Your task to perform on an android device: Open notification settings Image 0: 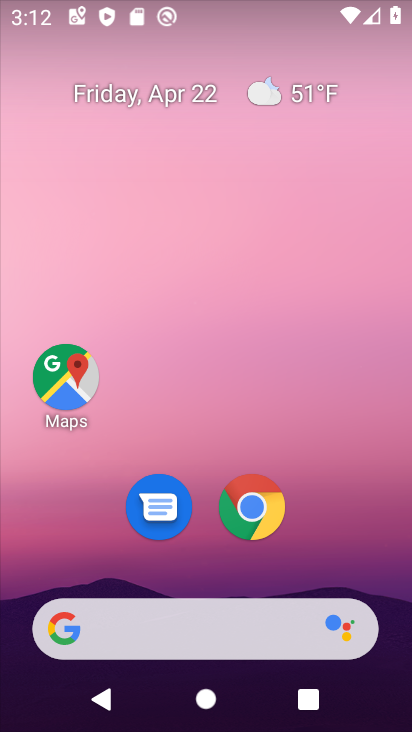
Step 0: drag from (207, 465) to (214, 99)
Your task to perform on an android device: Open notification settings Image 1: 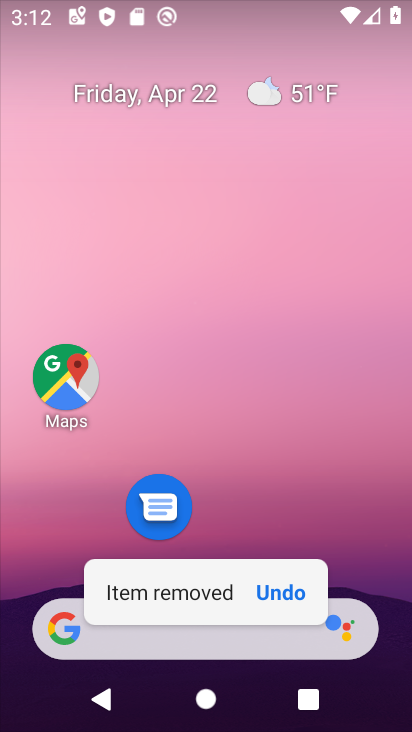
Step 1: drag from (242, 496) to (252, 54)
Your task to perform on an android device: Open notification settings Image 2: 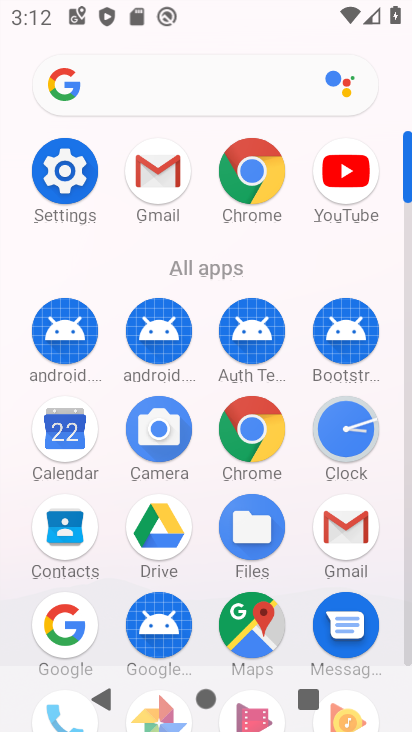
Step 2: click (68, 162)
Your task to perform on an android device: Open notification settings Image 3: 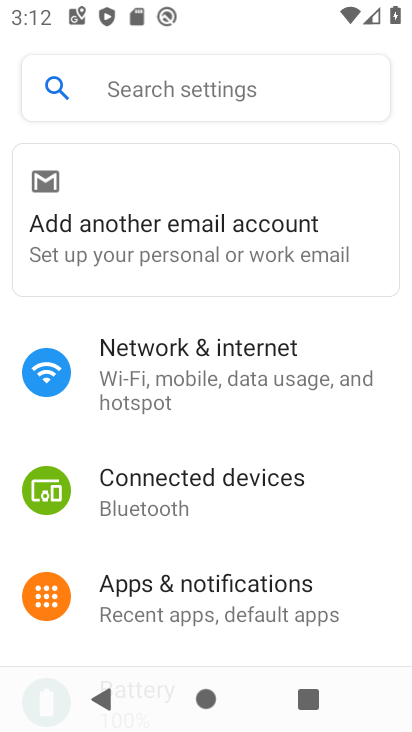
Step 3: click (214, 600)
Your task to perform on an android device: Open notification settings Image 4: 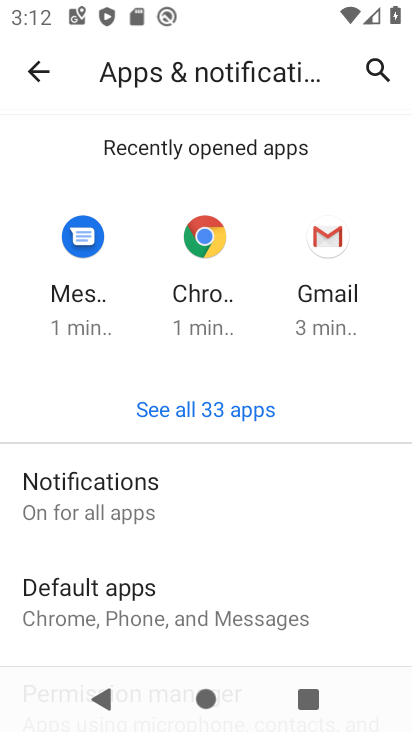
Step 4: task complete